Your task to perform on an android device: Go to Yahoo.com Image 0: 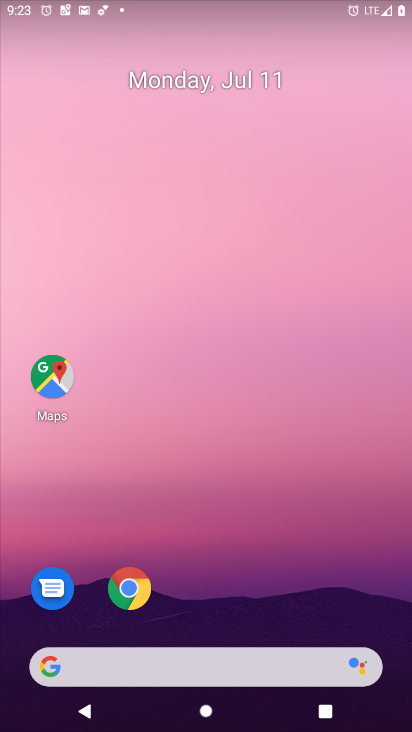
Step 0: click (142, 585)
Your task to perform on an android device: Go to Yahoo.com Image 1: 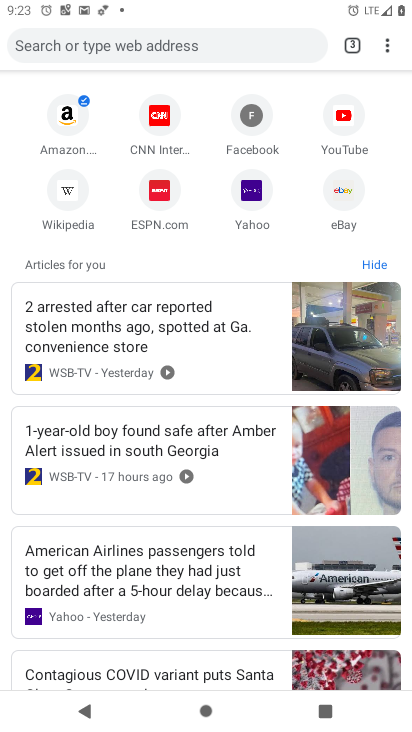
Step 1: click (248, 201)
Your task to perform on an android device: Go to Yahoo.com Image 2: 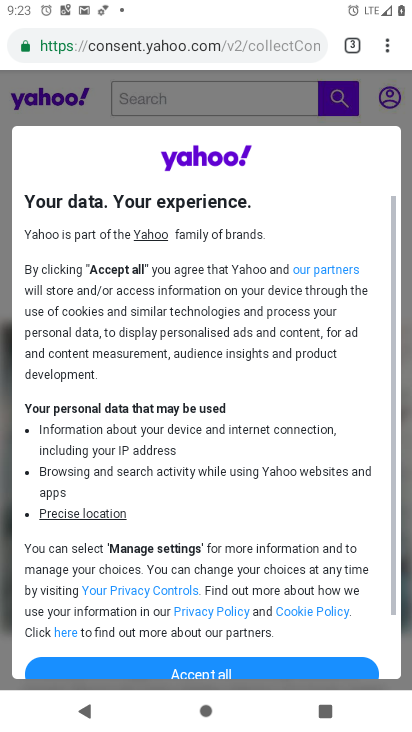
Step 2: drag from (215, 582) to (297, 208)
Your task to perform on an android device: Go to Yahoo.com Image 3: 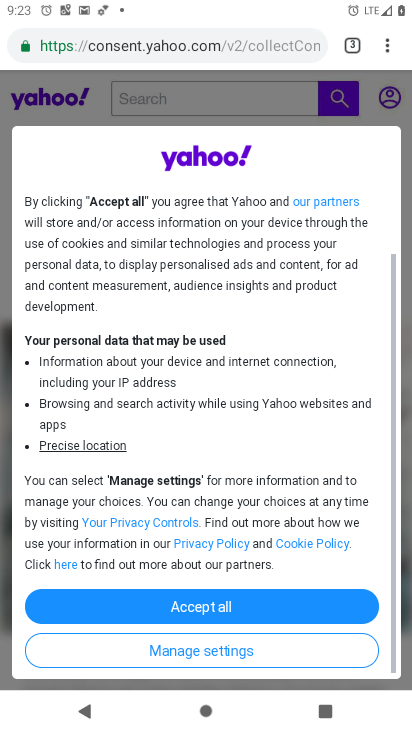
Step 3: click (212, 604)
Your task to perform on an android device: Go to Yahoo.com Image 4: 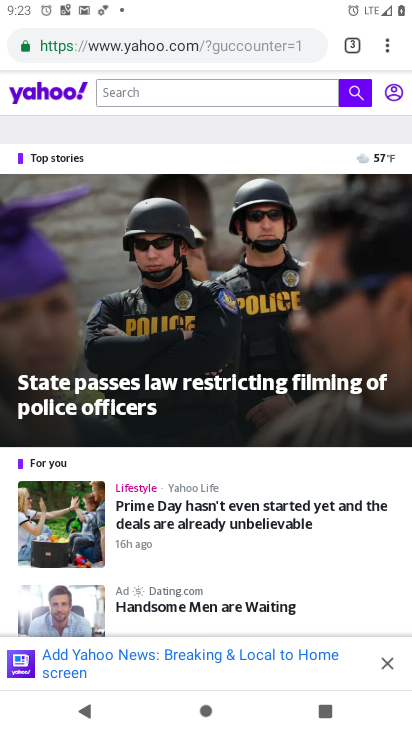
Step 4: task complete